Your task to perform on an android device: Go to calendar. Show me events next week Image 0: 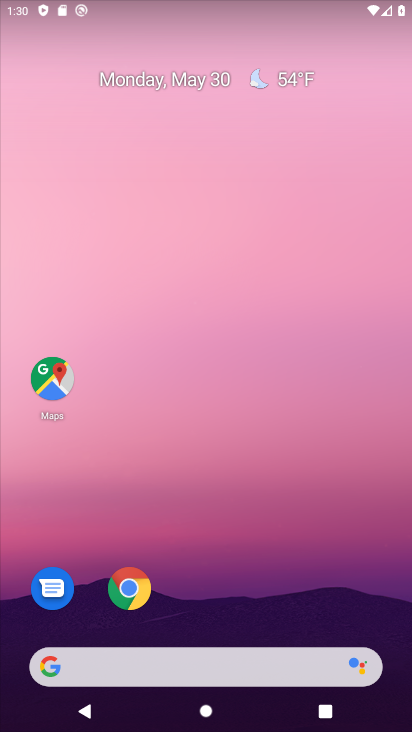
Step 0: drag from (208, 479) to (256, 147)
Your task to perform on an android device: Go to calendar. Show me events next week Image 1: 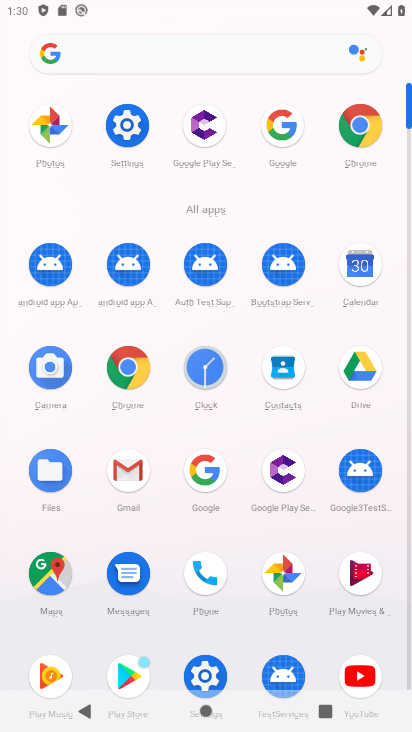
Step 1: click (365, 274)
Your task to perform on an android device: Go to calendar. Show me events next week Image 2: 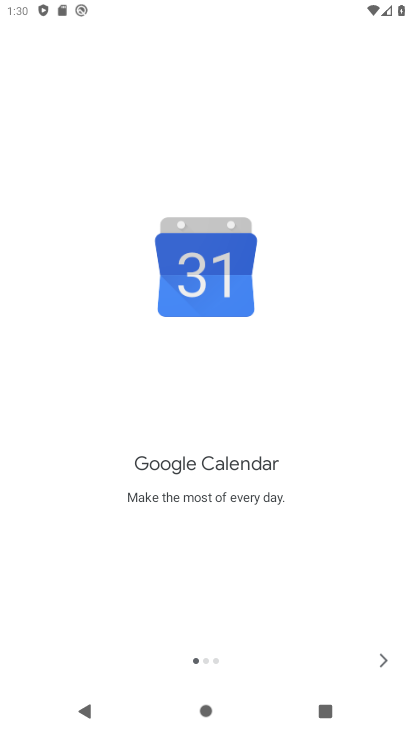
Step 2: click (387, 665)
Your task to perform on an android device: Go to calendar. Show me events next week Image 3: 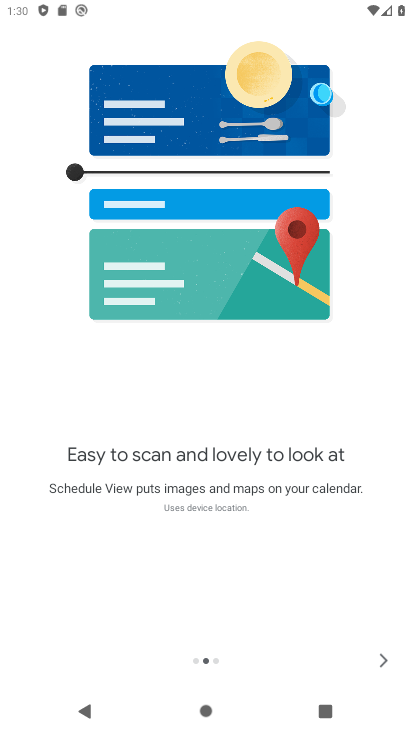
Step 3: click (387, 665)
Your task to perform on an android device: Go to calendar. Show me events next week Image 4: 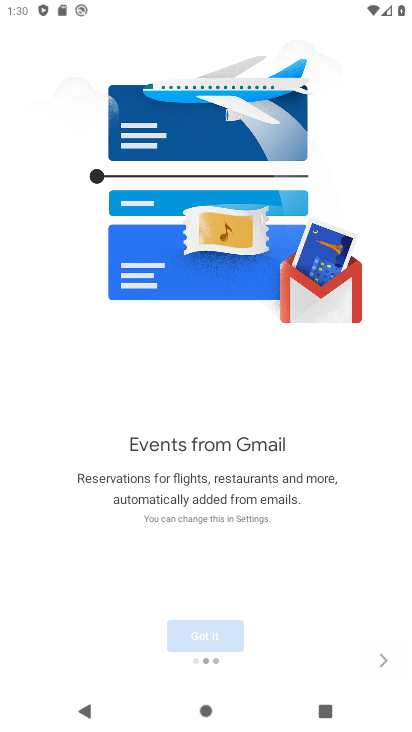
Step 4: click (387, 665)
Your task to perform on an android device: Go to calendar. Show me events next week Image 5: 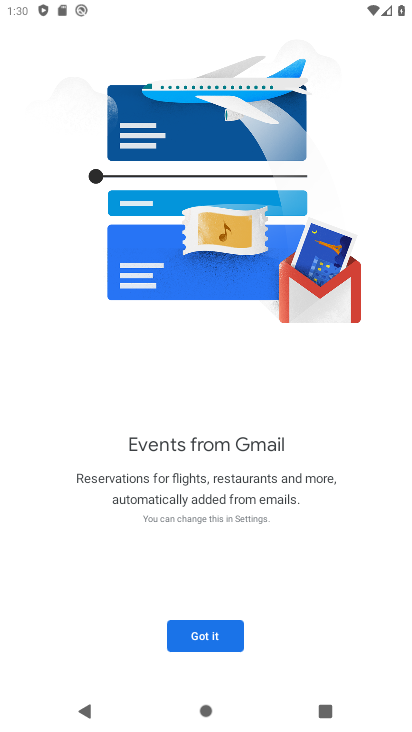
Step 5: click (226, 636)
Your task to perform on an android device: Go to calendar. Show me events next week Image 6: 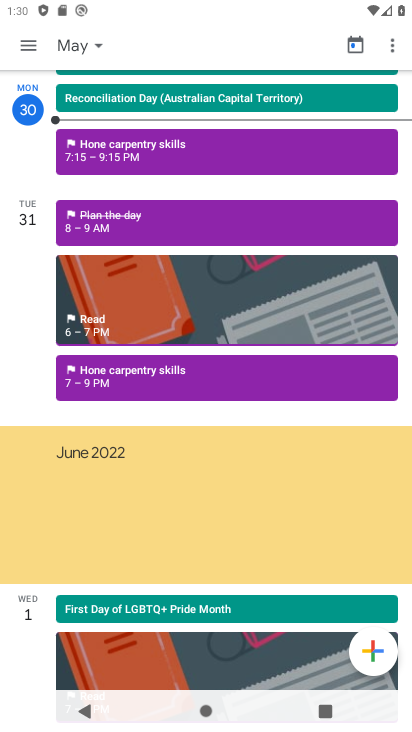
Step 6: click (91, 54)
Your task to perform on an android device: Go to calendar. Show me events next week Image 7: 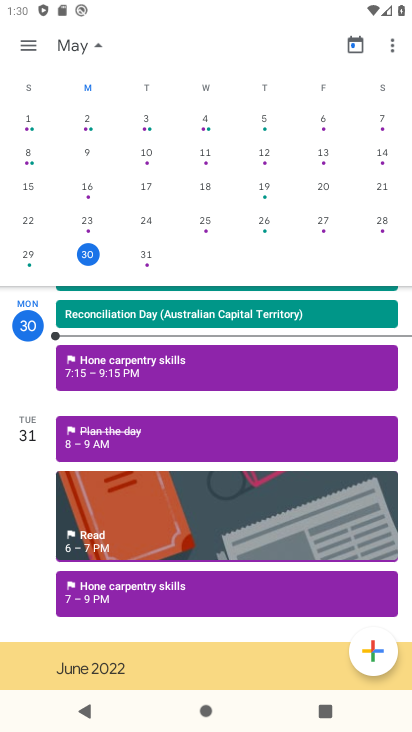
Step 7: drag from (361, 250) to (1, 215)
Your task to perform on an android device: Go to calendar. Show me events next week Image 8: 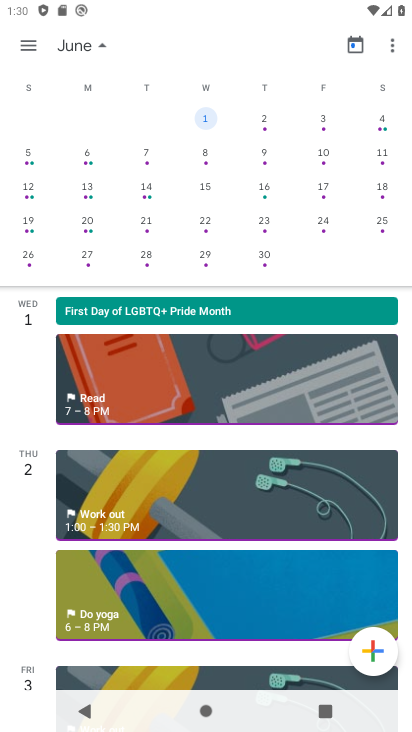
Step 8: click (262, 121)
Your task to perform on an android device: Go to calendar. Show me events next week Image 9: 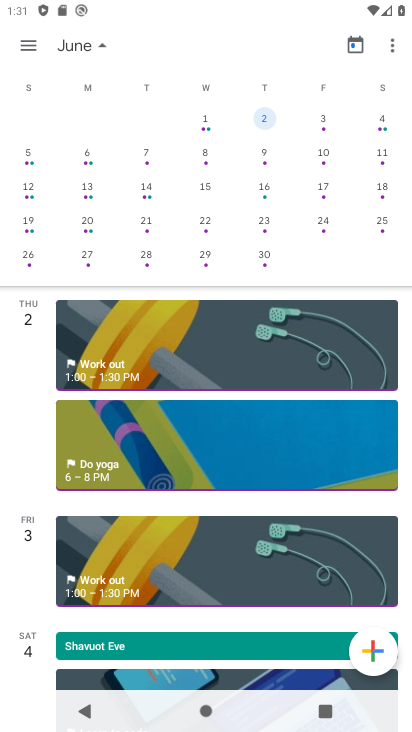
Step 9: task complete